Your task to perform on an android device: turn smart compose on in the gmail app Image 0: 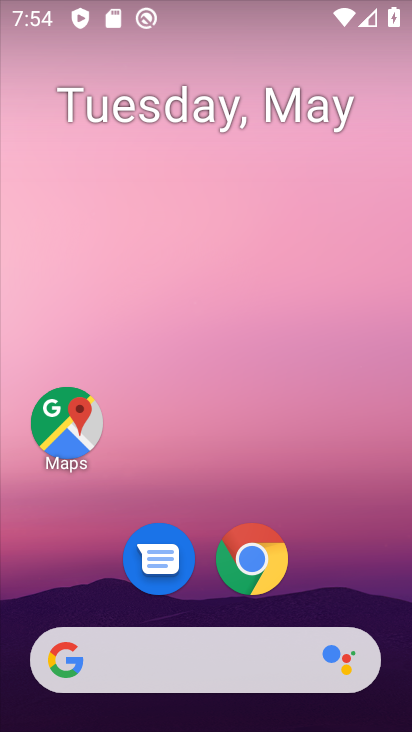
Step 0: drag from (196, 606) to (260, 41)
Your task to perform on an android device: turn smart compose on in the gmail app Image 1: 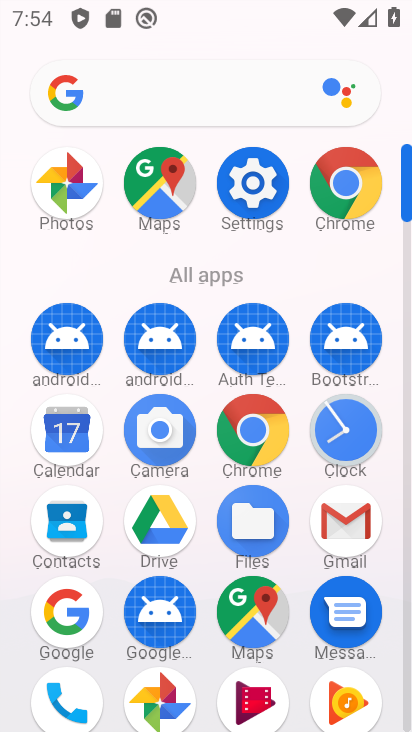
Step 1: click (354, 524)
Your task to perform on an android device: turn smart compose on in the gmail app Image 2: 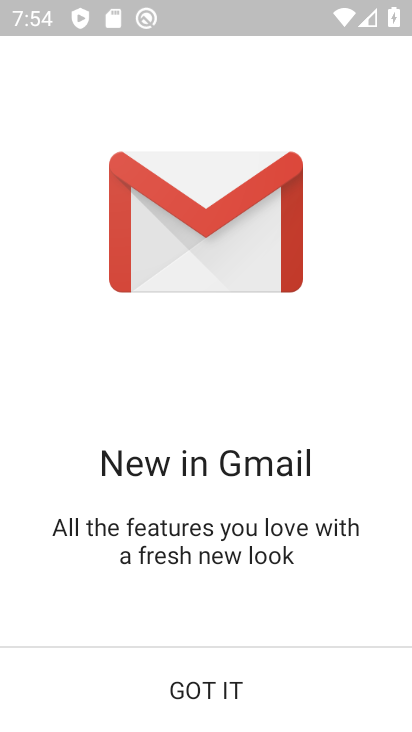
Step 2: click (231, 688)
Your task to perform on an android device: turn smart compose on in the gmail app Image 3: 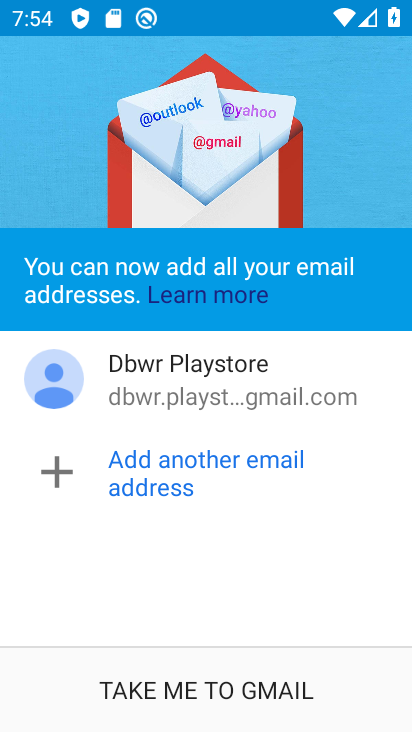
Step 3: click (231, 688)
Your task to perform on an android device: turn smart compose on in the gmail app Image 4: 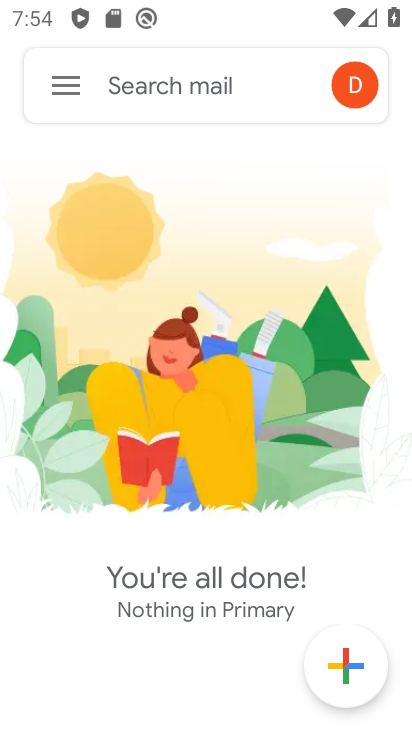
Step 4: click (69, 69)
Your task to perform on an android device: turn smart compose on in the gmail app Image 5: 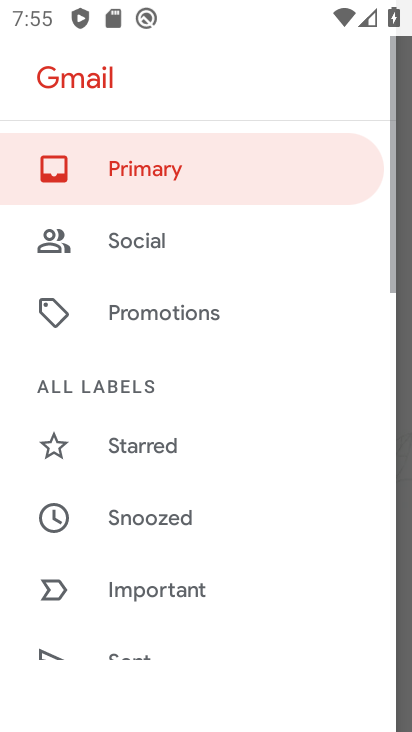
Step 5: drag from (185, 588) to (245, 228)
Your task to perform on an android device: turn smart compose on in the gmail app Image 6: 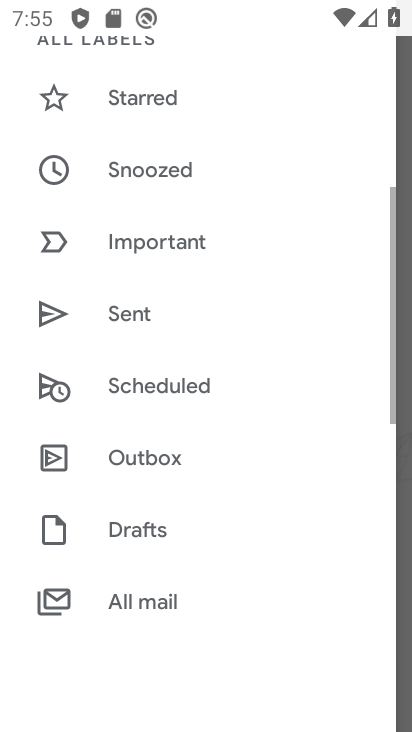
Step 6: drag from (195, 587) to (240, 278)
Your task to perform on an android device: turn smart compose on in the gmail app Image 7: 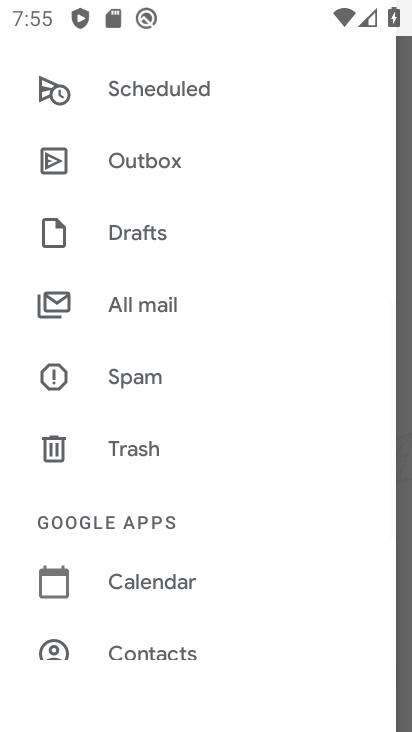
Step 7: drag from (175, 627) to (214, 355)
Your task to perform on an android device: turn smart compose on in the gmail app Image 8: 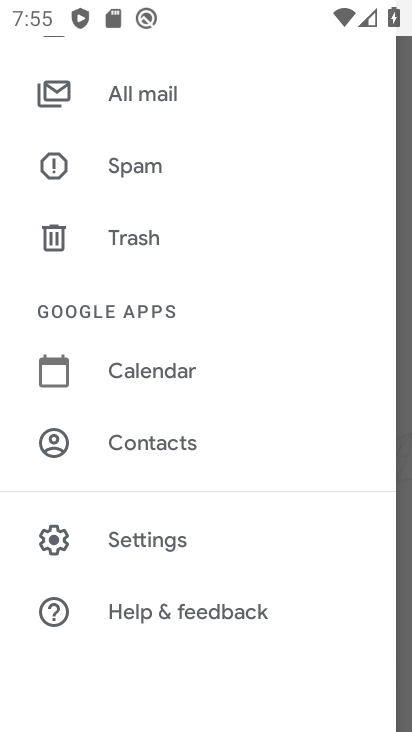
Step 8: click (168, 529)
Your task to perform on an android device: turn smart compose on in the gmail app Image 9: 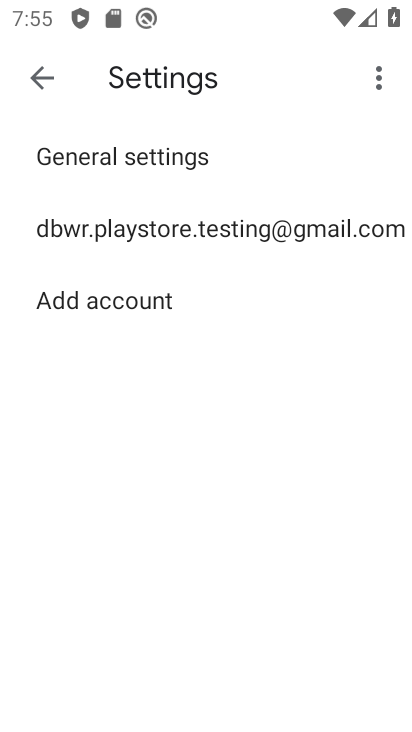
Step 9: click (106, 229)
Your task to perform on an android device: turn smart compose on in the gmail app Image 10: 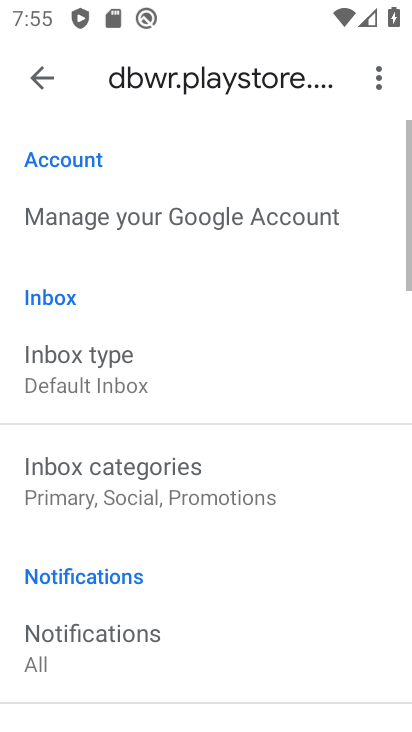
Step 10: task complete